Your task to perform on an android device: check storage Image 0: 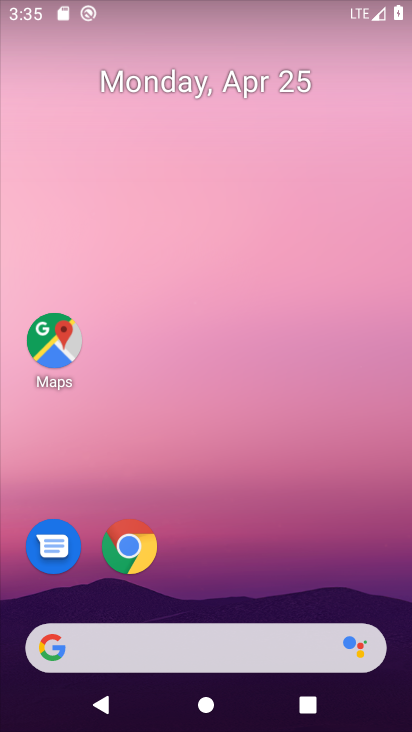
Step 0: drag from (253, 549) to (260, 0)
Your task to perform on an android device: check storage Image 1: 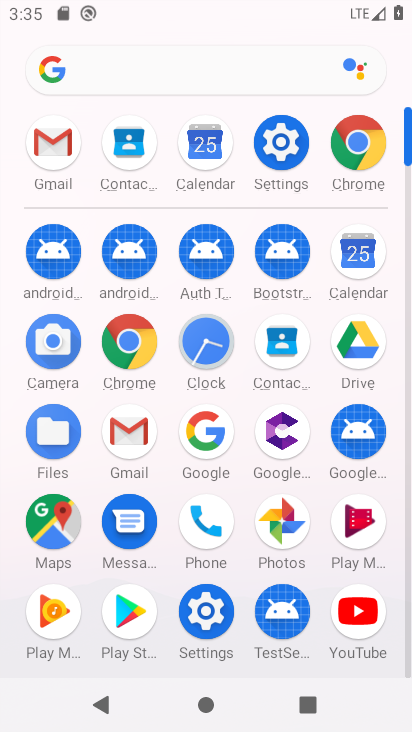
Step 1: click (291, 140)
Your task to perform on an android device: check storage Image 2: 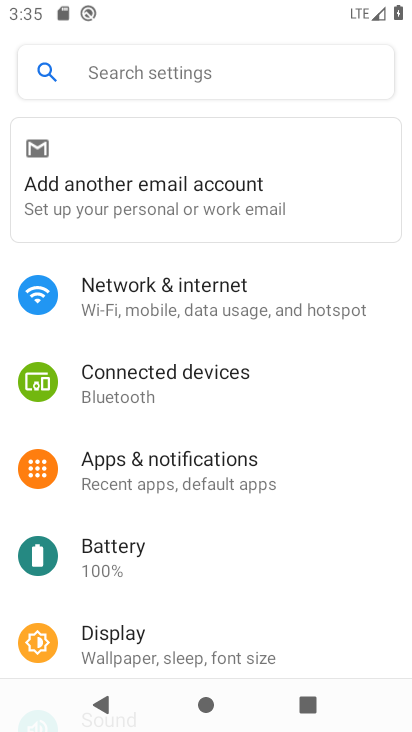
Step 2: drag from (197, 591) to (215, 343)
Your task to perform on an android device: check storage Image 3: 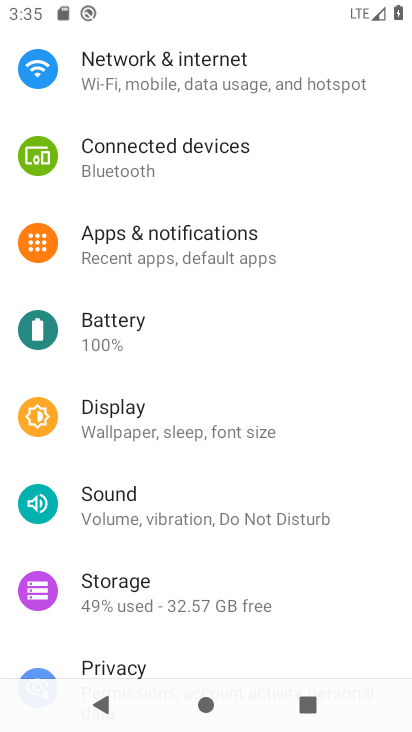
Step 3: click (155, 573)
Your task to perform on an android device: check storage Image 4: 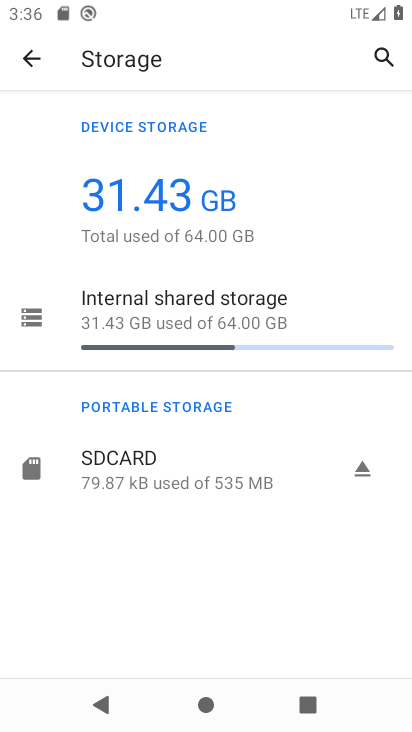
Step 4: task complete